Your task to perform on an android device: Search for Italian restaurants on Maps Image 0: 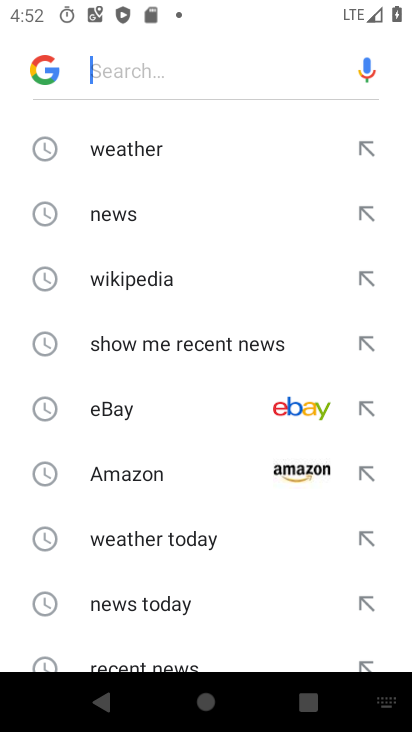
Step 0: press home button
Your task to perform on an android device: Search for Italian restaurants on Maps Image 1: 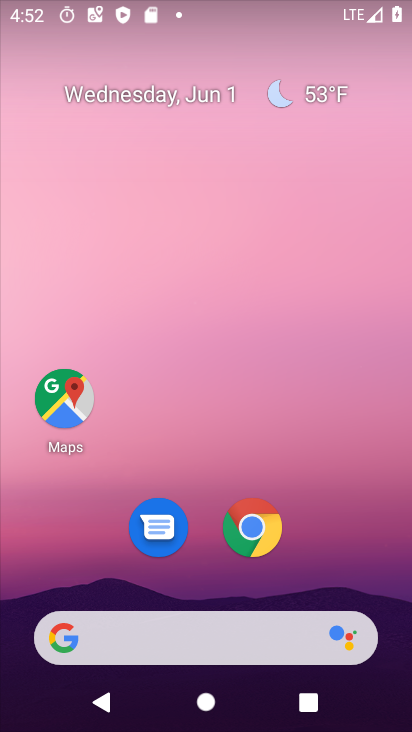
Step 1: drag from (332, 564) to (340, 59)
Your task to perform on an android device: Search for Italian restaurants on Maps Image 2: 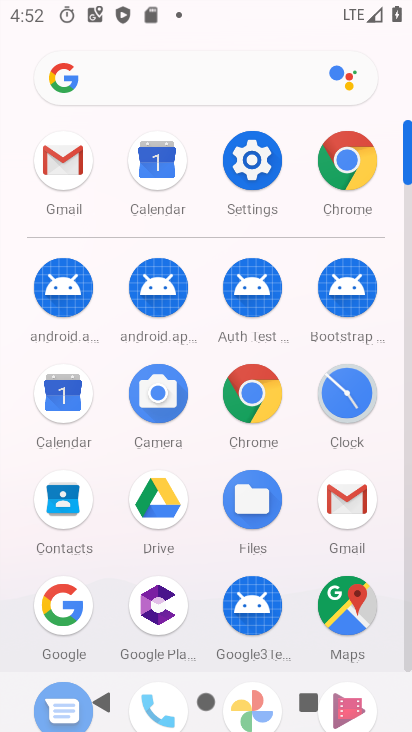
Step 2: click (355, 586)
Your task to perform on an android device: Search for Italian restaurants on Maps Image 3: 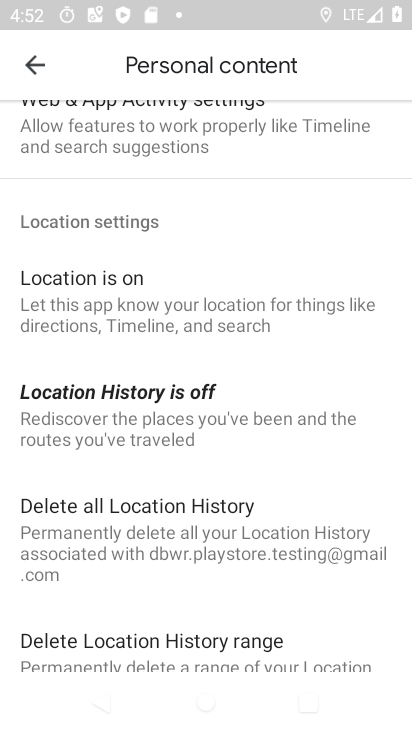
Step 3: click (35, 64)
Your task to perform on an android device: Search for Italian restaurants on Maps Image 4: 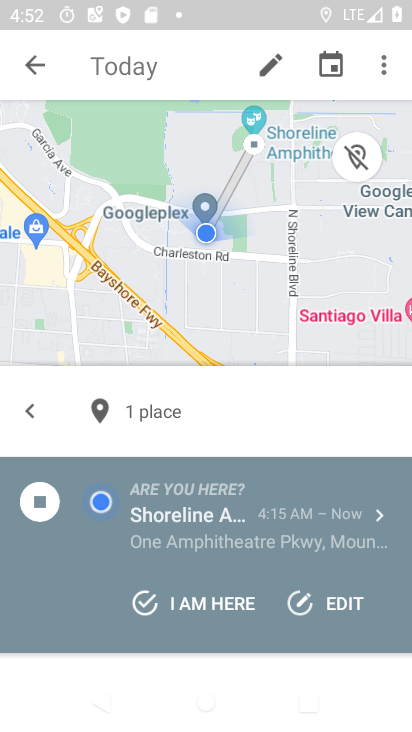
Step 4: click (39, 68)
Your task to perform on an android device: Search for Italian restaurants on Maps Image 5: 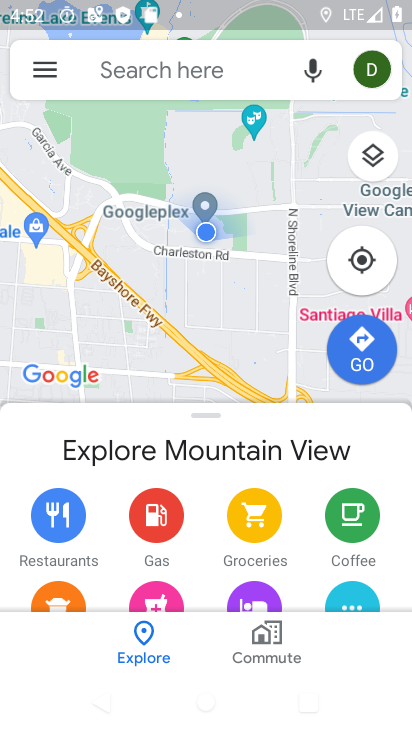
Step 5: click (118, 58)
Your task to perform on an android device: Search for Italian restaurants on Maps Image 6: 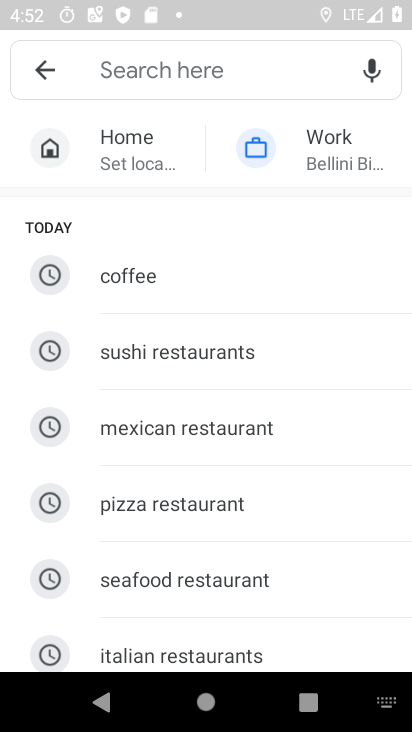
Step 6: type " Italian restaurants "
Your task to perform on an android device: Search for Italian restaurants on Maps Image 7: 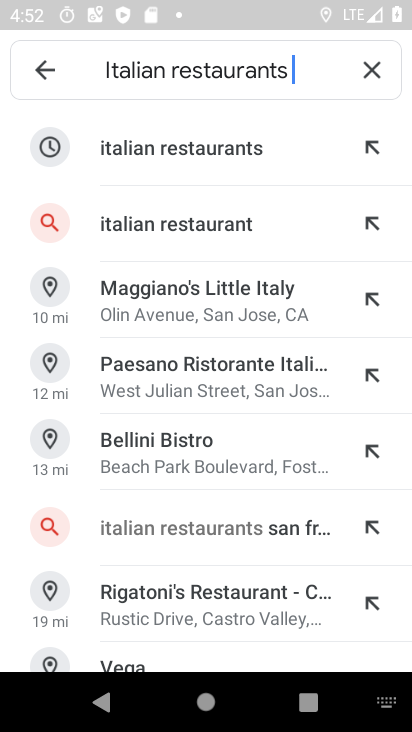
Step 7: click (186, 148)
Your task to perform on an android device: Search for Italian restaurants on Maps Image 8: 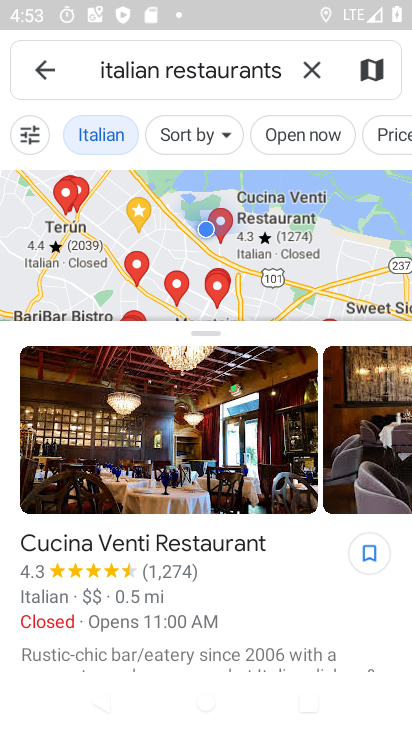
Step 8: task complete